Your task to perform on an android device: turn on notifications settings in the gmail app Image 0: 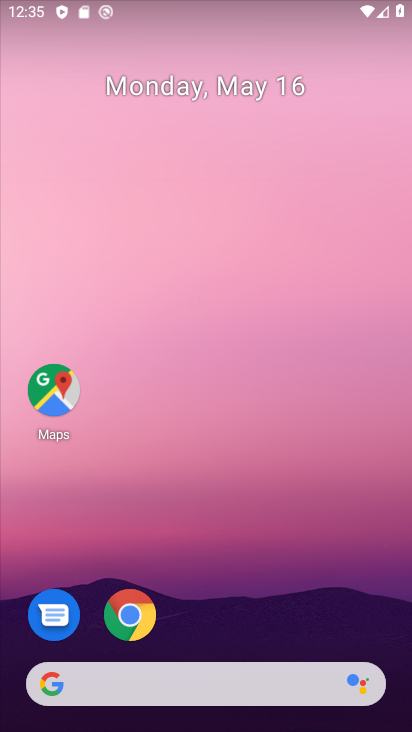
Step 0: drag from (311, 565) to (289, 139)
Your task to perform on an android device: turn on notifications settings in the gmail app Image 1: 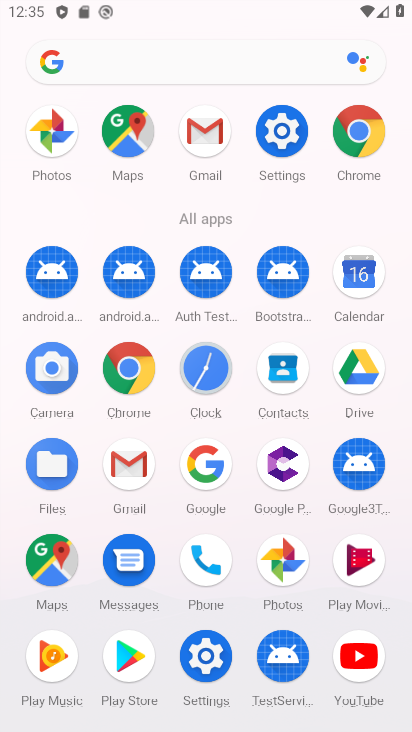
Step 1: click (211, 134)
Your task to perform on an android device: turn on notifications settings in the gmail app Image 2: 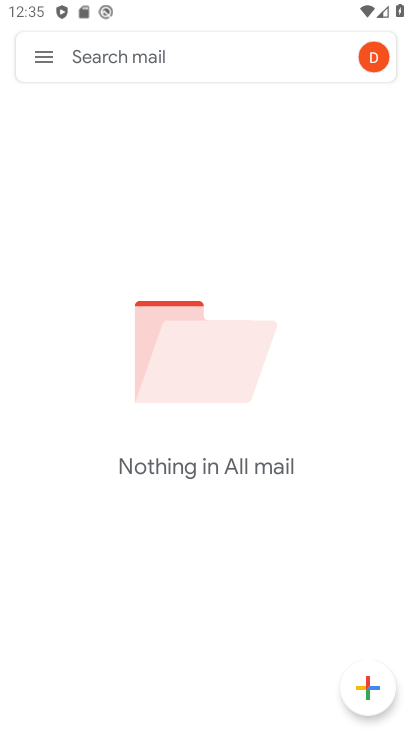
Step 2: click (57, 64)
Your task to perform on an android device: turn on notifications settings in the gmail app Image 3: 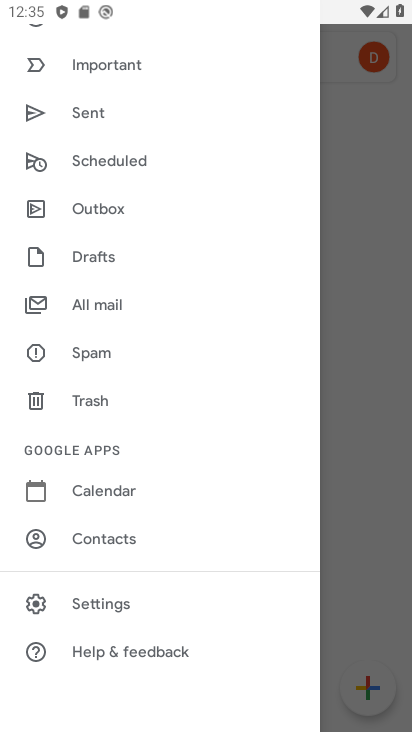
Step 3: click (124, 605)
Your task to perform on an android device: turn on notifications settings in the gmail app Image 4: 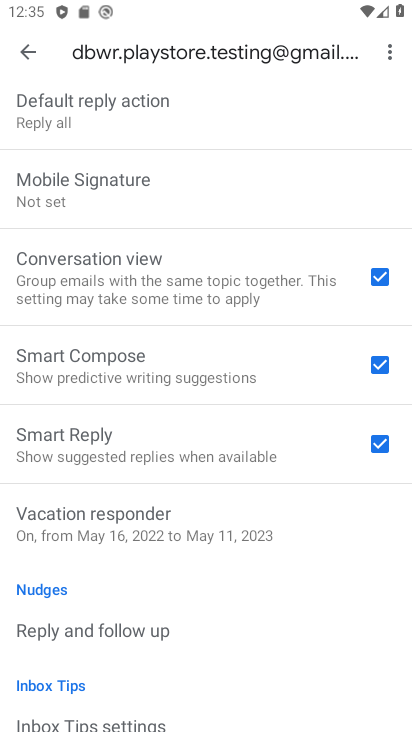
Step 4: drag from (254, 122) to (359, 731)
Your task to perform on an android device: turn on notifications settings in the gmail app Image 5: 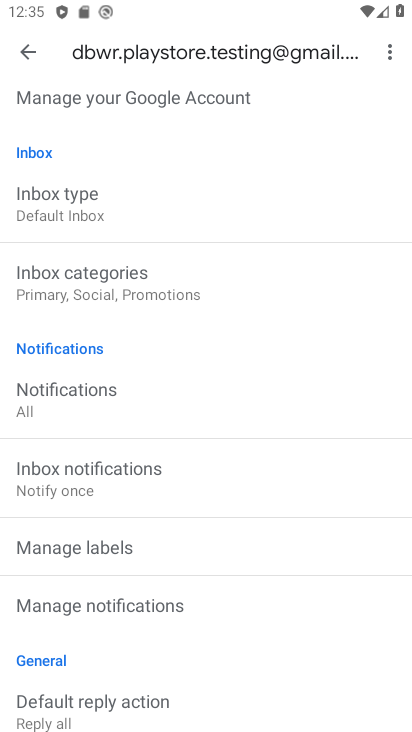
Step 5: click (145, 612)
Your task to perform on an android device: turn on notifications settings in the gmail app Image 6: 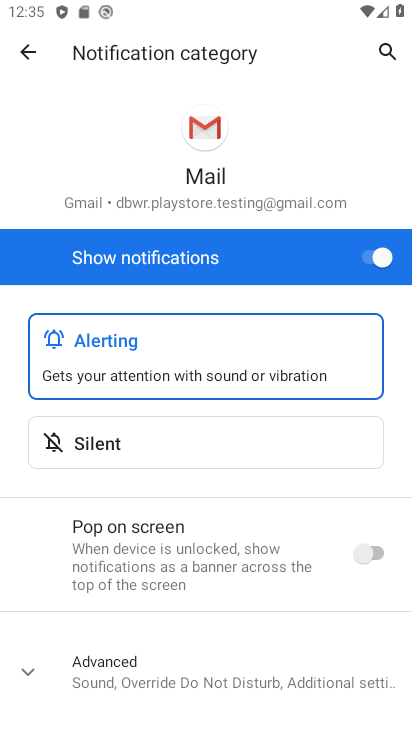
Step 6: task complete